Your task to perform on an android device: turn off smart reply in the gmail app Image 0: 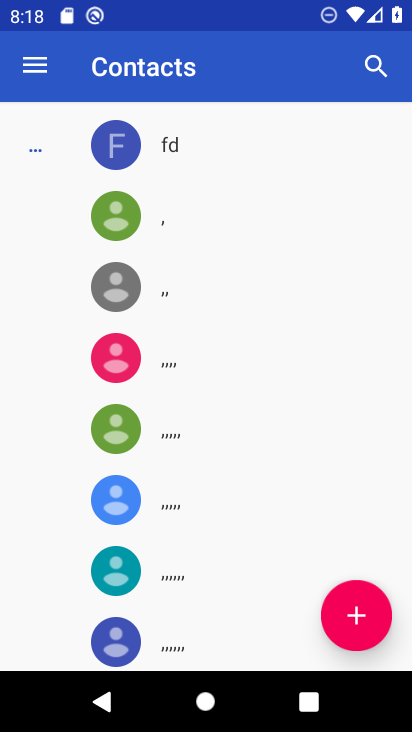
Step 0: press home button
Your task to perform on an android device: turn off smart reply in the gmail app Image 1: 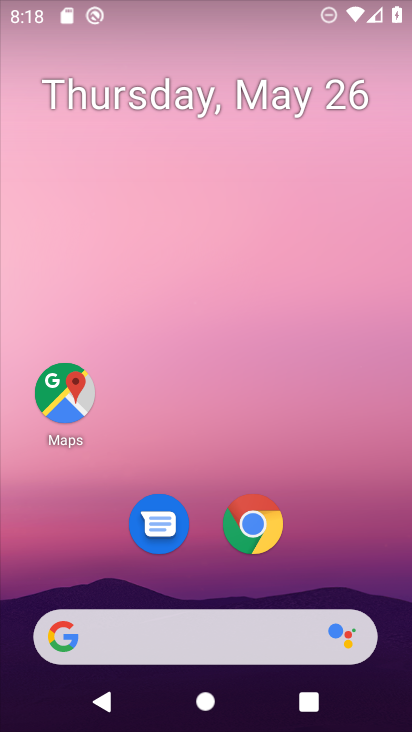
Step 1: drag from (326, 451) to (236, 53)
Your task to perform on an android device: turn off smart reply in the gmail app Image 2: 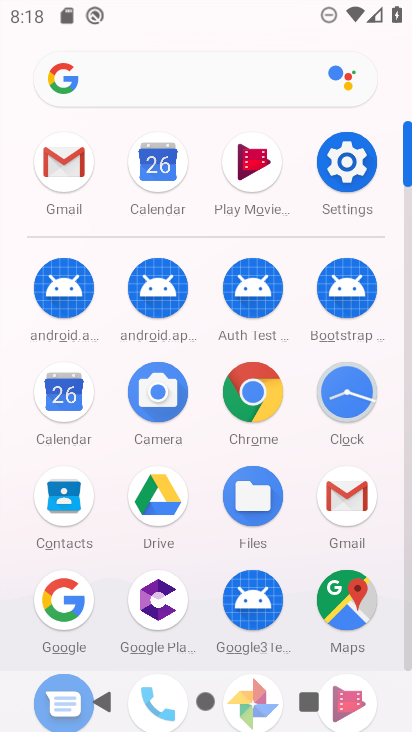
Step 2: click (68, 166)
Your task to perform on an android device: turn off smart reply in the gmail app Image 3: 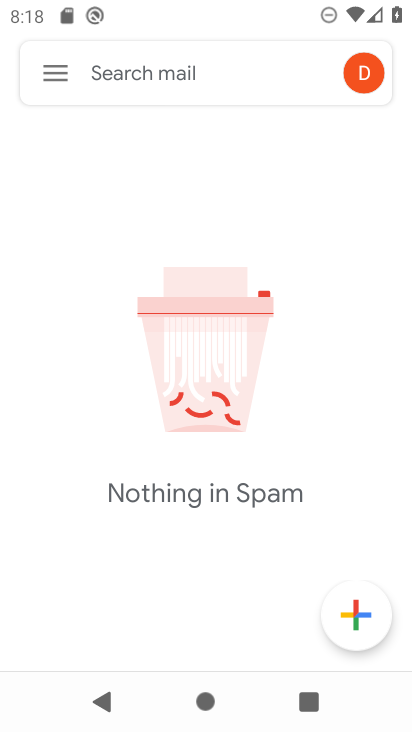
Step 3: click (56, 69)
Your task to perform on an android device: turn off smart reply in the gmail app Image 4: 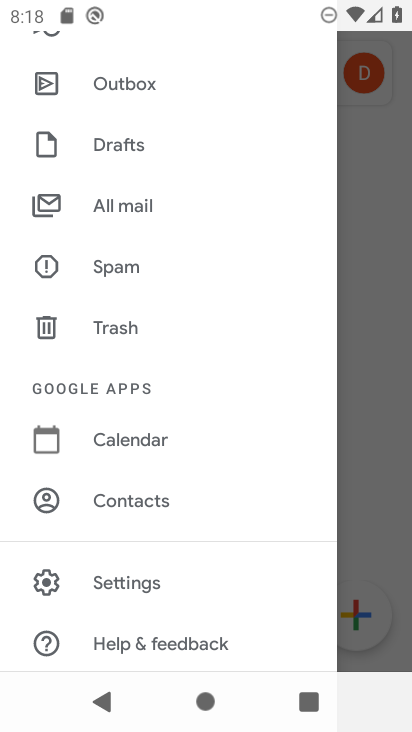
Step 4: click (147, 589)
Your task to perform on an android device: turn off smart reply in the gmail app Image 5: 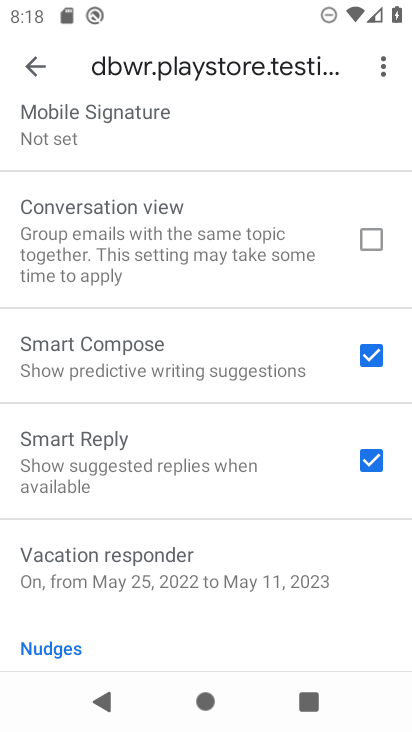
Step 5: click (369, 454)
Your task to perform on an android device: turn off smart reply in the gmail app Image 6: 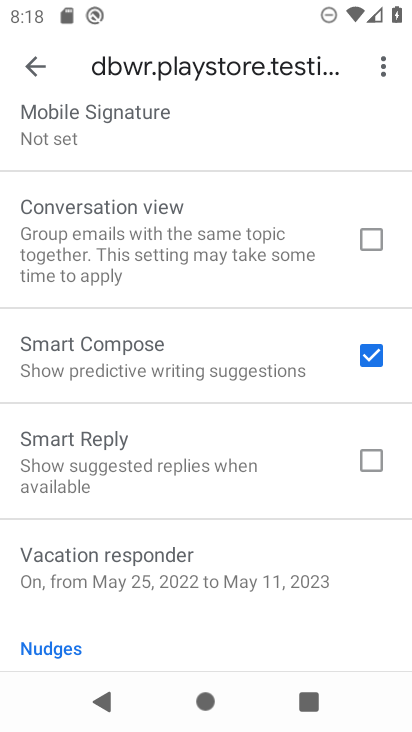
Step 6: task complete